Your task to perform on an android device: Go to display settings Image 0: 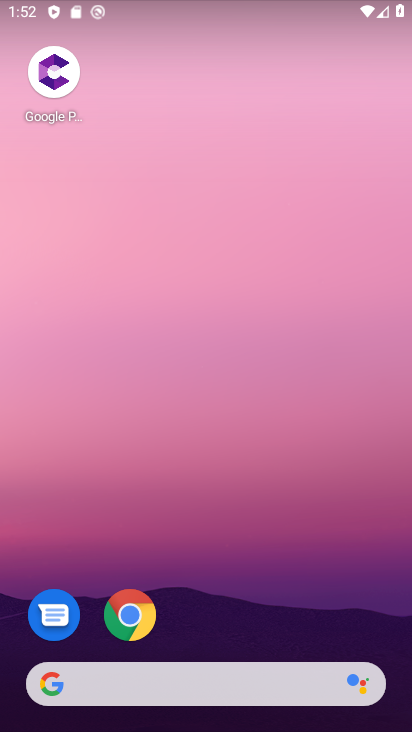
Step 0: drag from (192, 624) to (295, 98)
Your task to perform on an android device: Go to display settings Image 1: 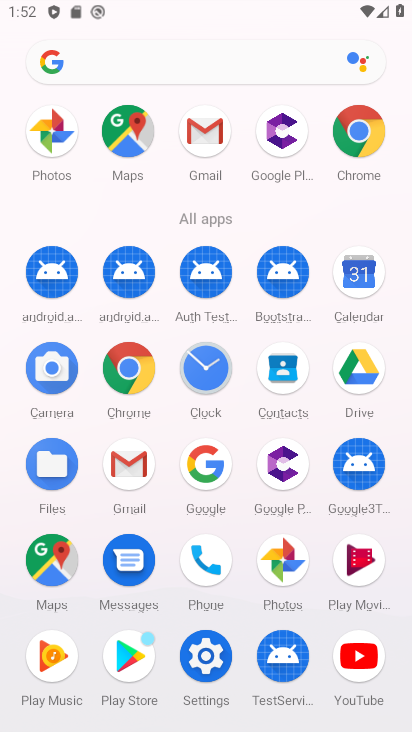
Step 1: click (195, 665)
Your task to perform on an android device: Go to display settings Image 2: 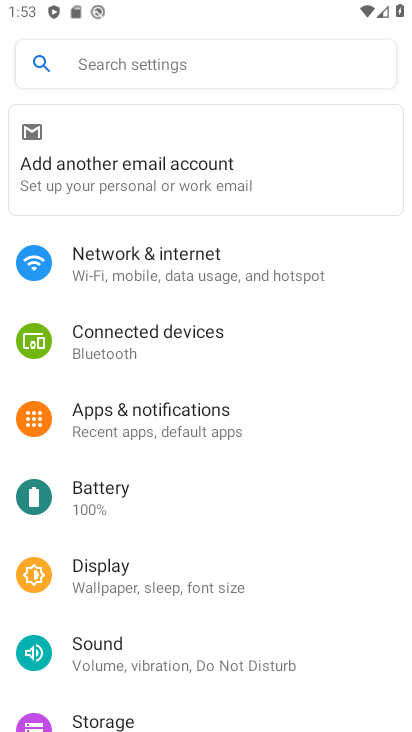
Step 2: click (169, 579)
Your task to perform on an android device: Go to display settings Image 3: 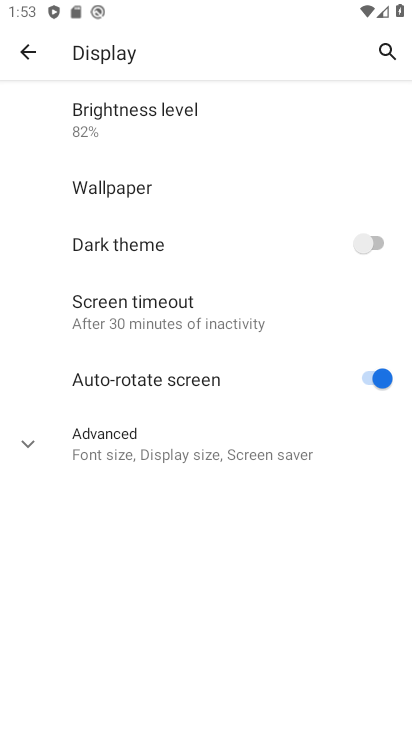
Step 3: click (177, 452)
Your task to perform on an android device: Go to display settings Image 4: 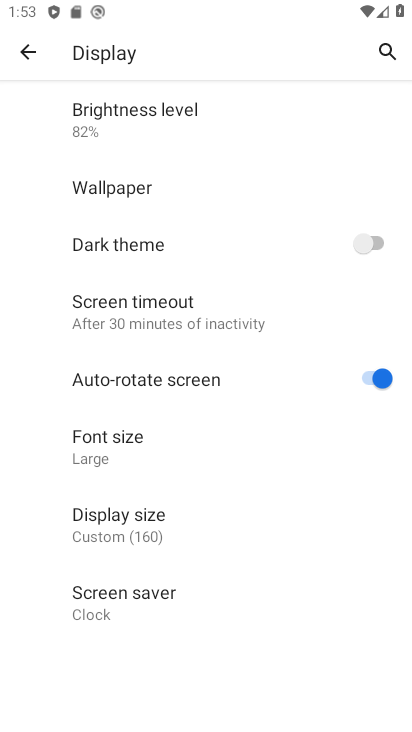
Step 4: task complete